Your task to perform on an android device: turn off data saver in the chrome app Image 0: 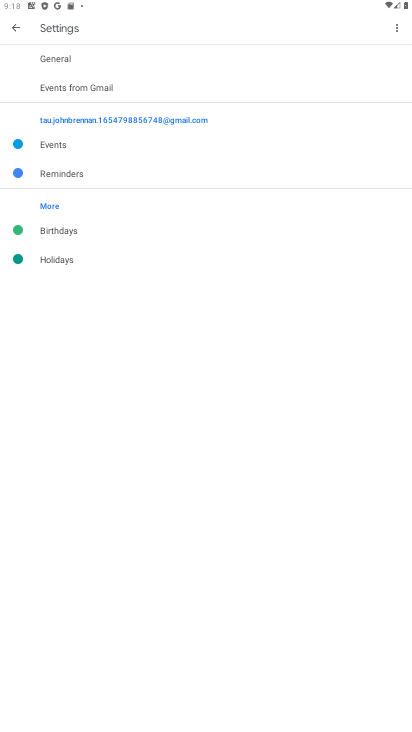
Step 0: press home button
Your task to perform on an android device: turn off data saver in the chrome app Image 1: 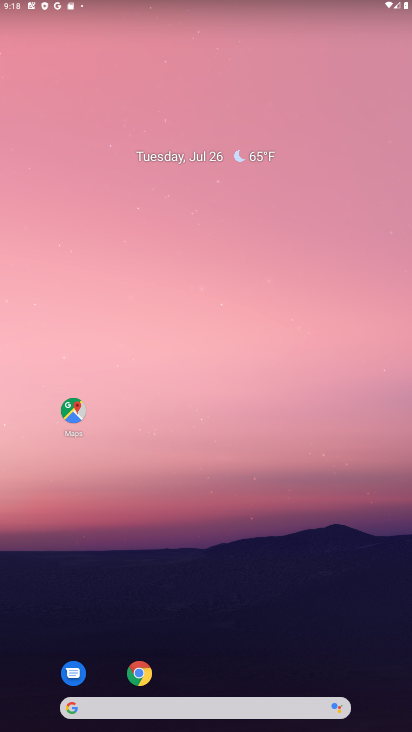
Step 1: click (142, 676)
Your task to perform on an android device: turn off data saver in the chrome app Image 2: 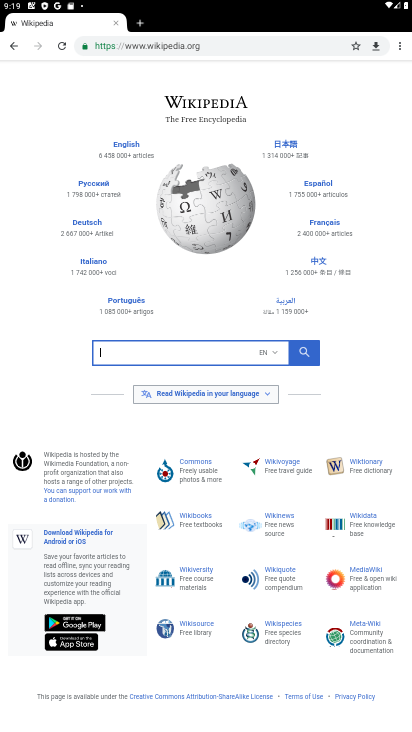
Step 2: click (398, 50)
Your task to perform on an android device: turn off data saver in the chrome app Image 3: 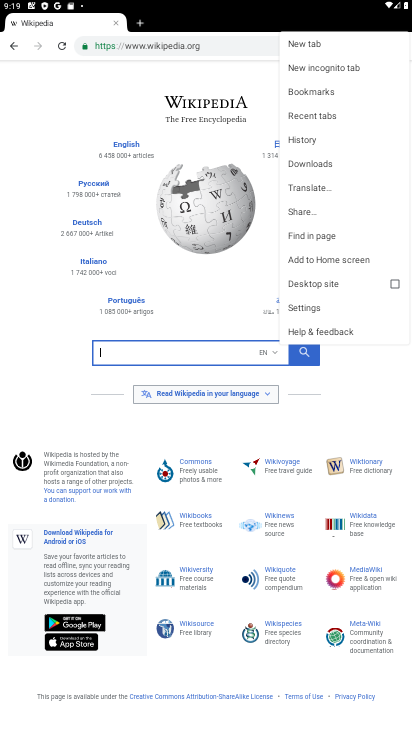
Step 3: click (309, 307)
Your task to perform on an android device: turn off data saver in the chrome app Image 4: 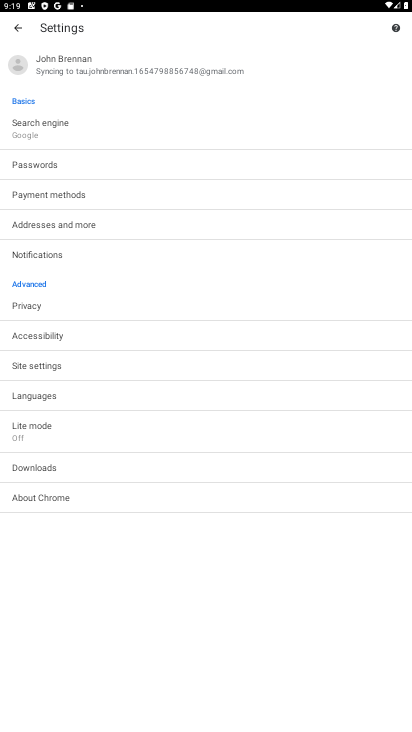
Step 4: click (37, 429)
Your task to perform on an android device: turn off data saver in the chrome app Image 5: 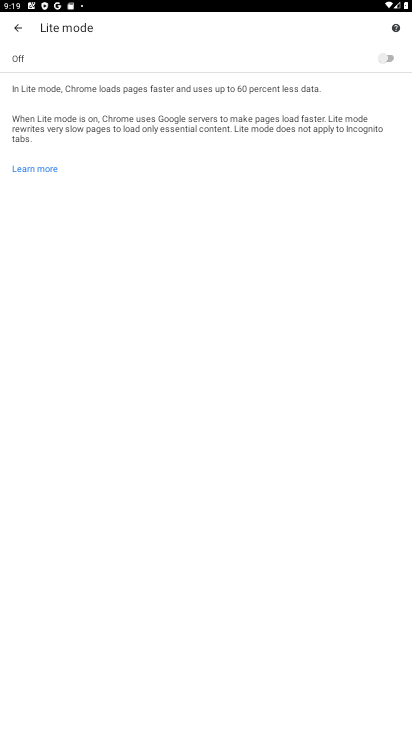
Step 5: task complete